Your task to perform on an android device: Find coffee shops on Maps Image 0: 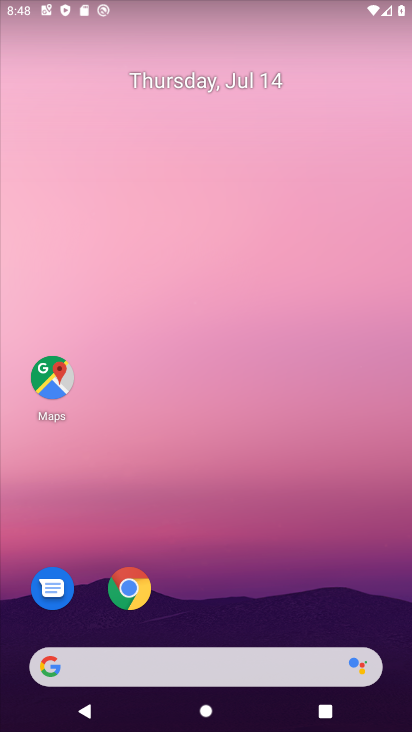
Step 0: drag from (202, 617) to (190, 79)
Your task to perform on an android device: Find coffee shops on Maps Image 1: 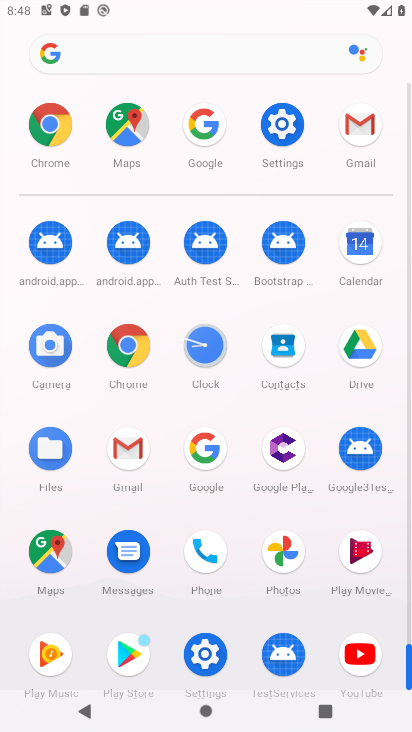
Step 1: click (51, 553)
Your task to perform on an android device: Find coffee shops on Maps Image 2: 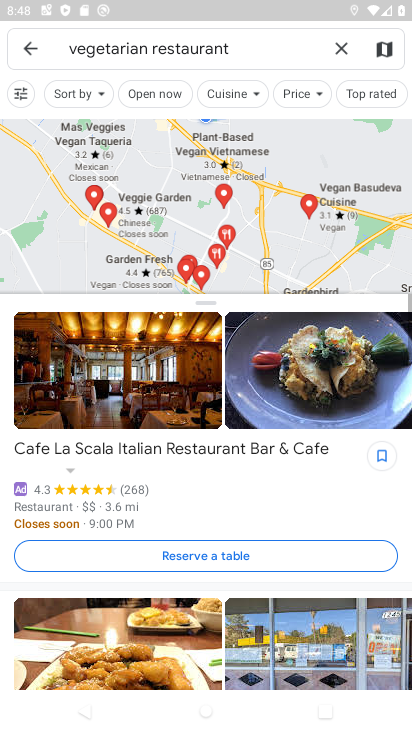
Step 2: click (343, 41)
Your task to perform on an android device: Find coffee shops on Maps Image 3: 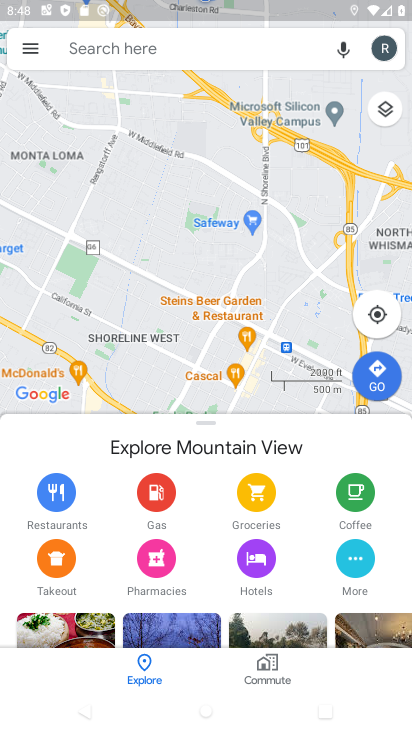
Step 3: click (196, 39)
Your task to perform on an android device: Find coffee shops on Maps Image 4: 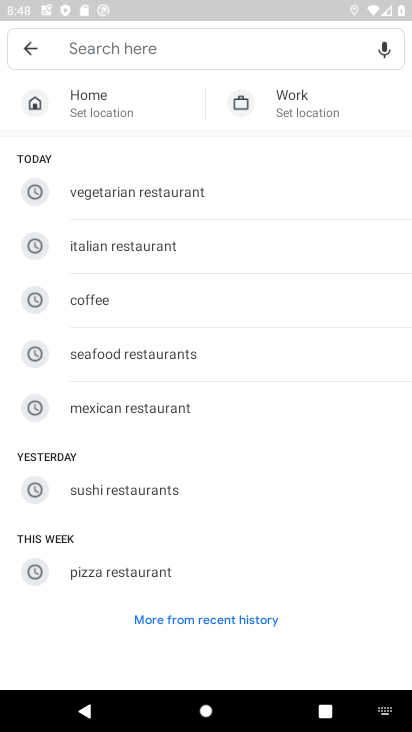
Step 4: click (108, 297)
Your task to perform on an android device: Find coffee shops on Maps Image 5: 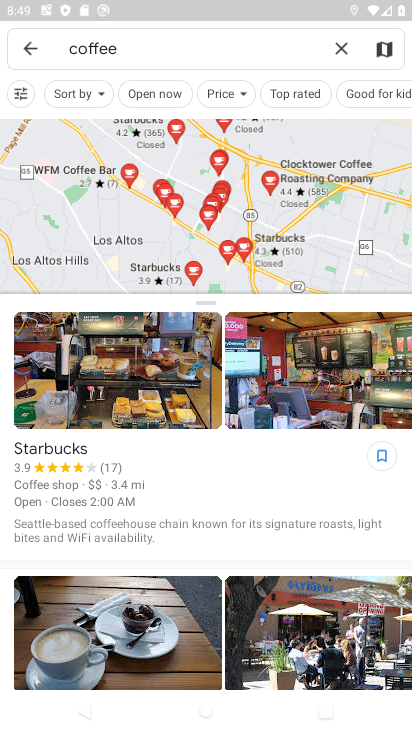
Step 5: task complete